Your task to perform on an android device: open wifi settings Image 0: 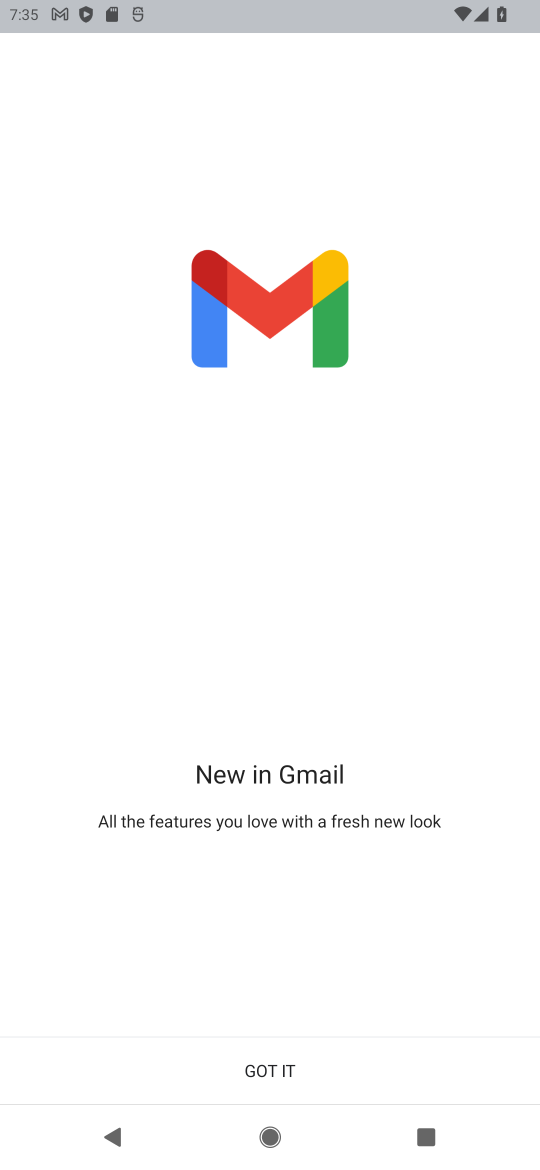
Step 0: press home button
Your task to perform on an android device: open wifi settings Image 1: 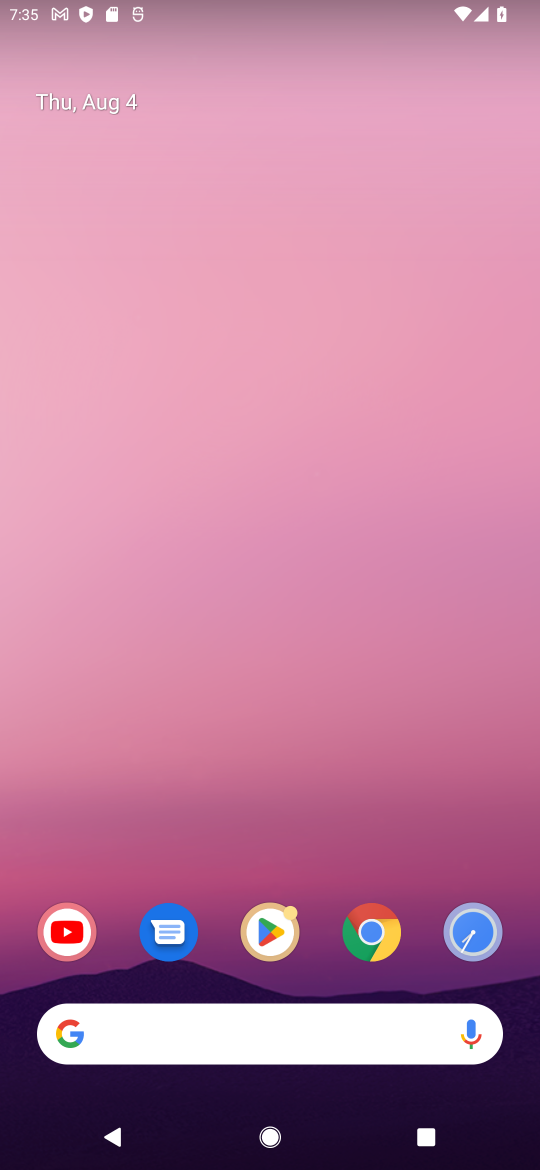
Step 1: drag from (319, 886) to (306, 150)
Your task to perform on an android device: open wifi settings Image 2: 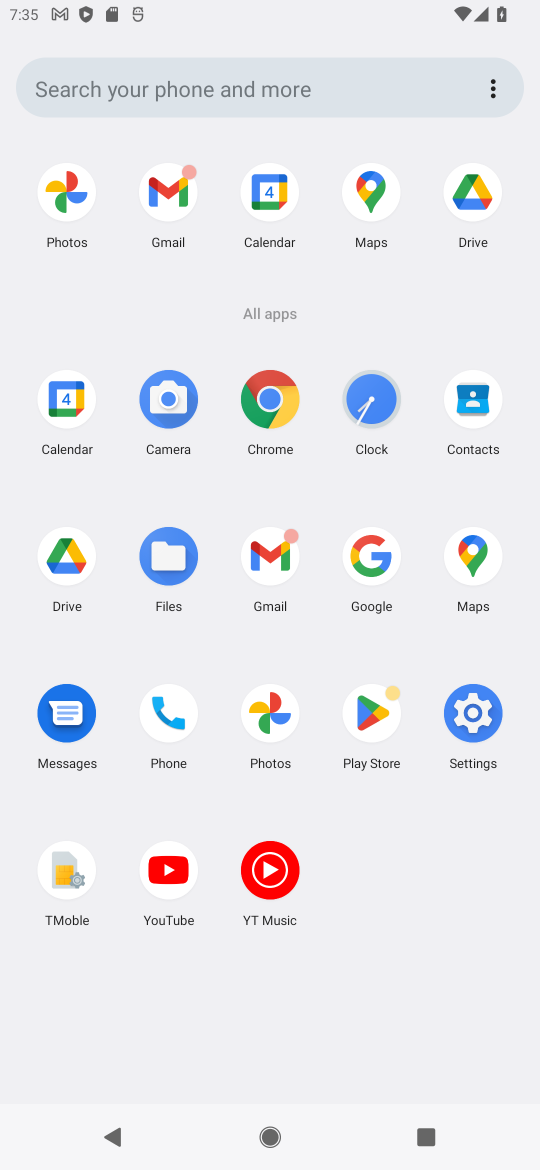
Step 2: click (479, 696)
Your task to perform on an android device: open wifi settings Image 3: 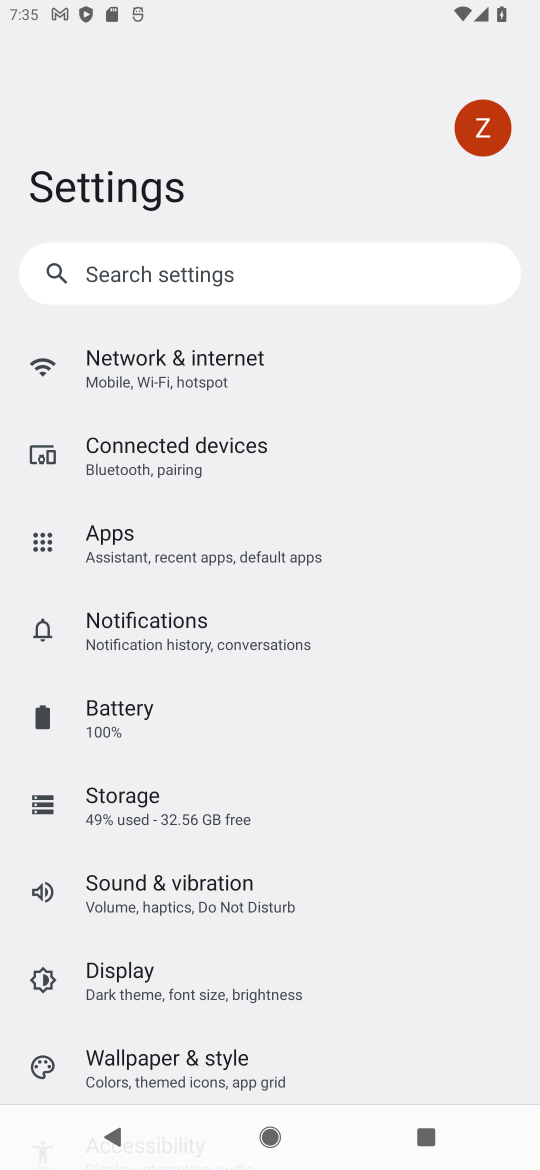
Step 3: click (195, 378)
Your task to perform on an android device: open wifi settings Image 4: 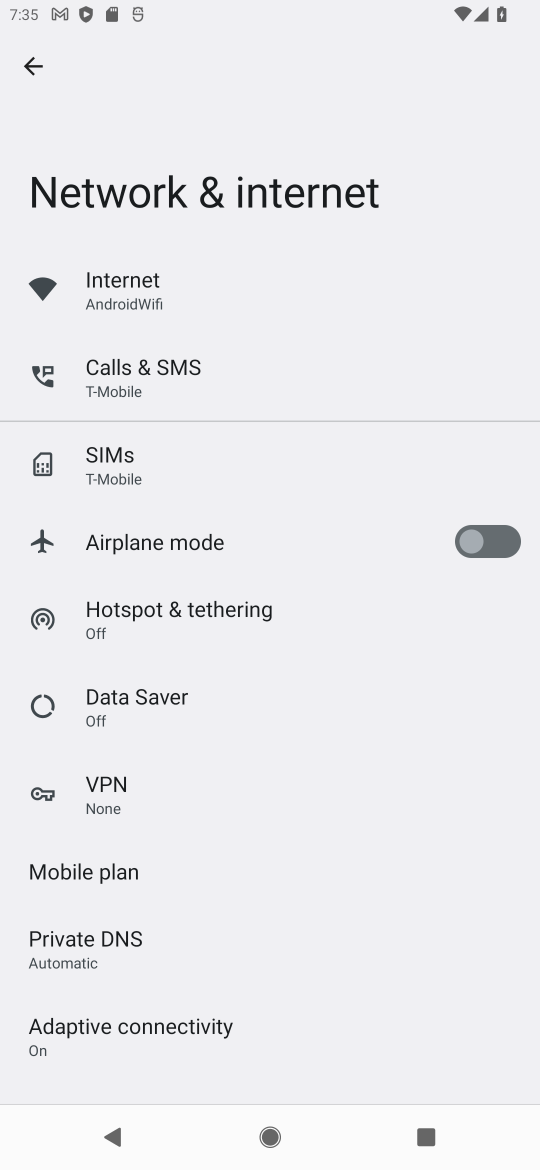
Step 4: click (184, 291)
Your task to perform on an android device: open wifi settings Image 5: 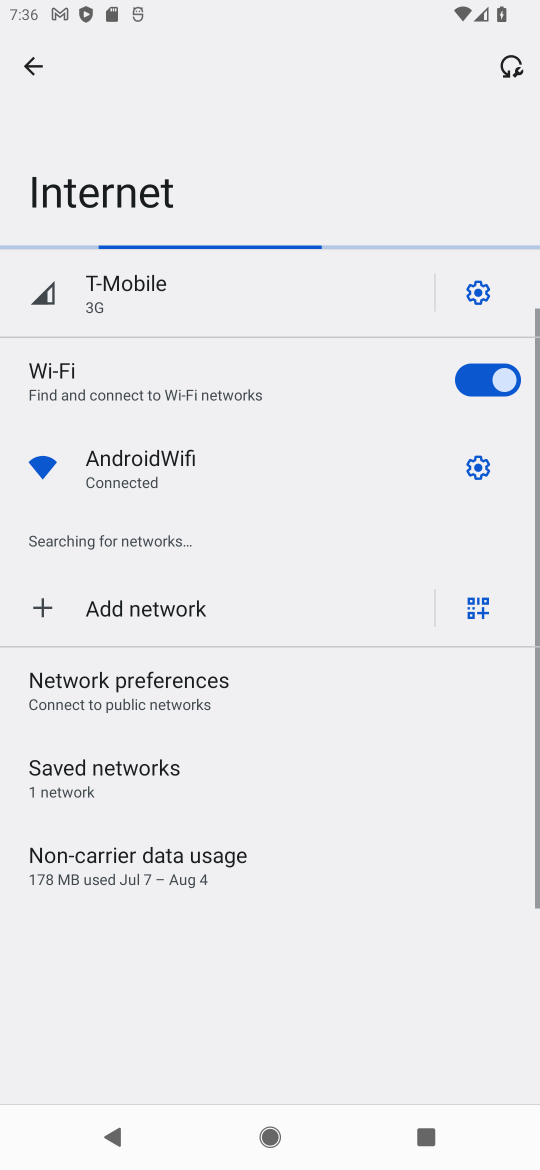
Step 5: click (485, 461)
Your task to perform on an android device: open wifi settings Image 6: 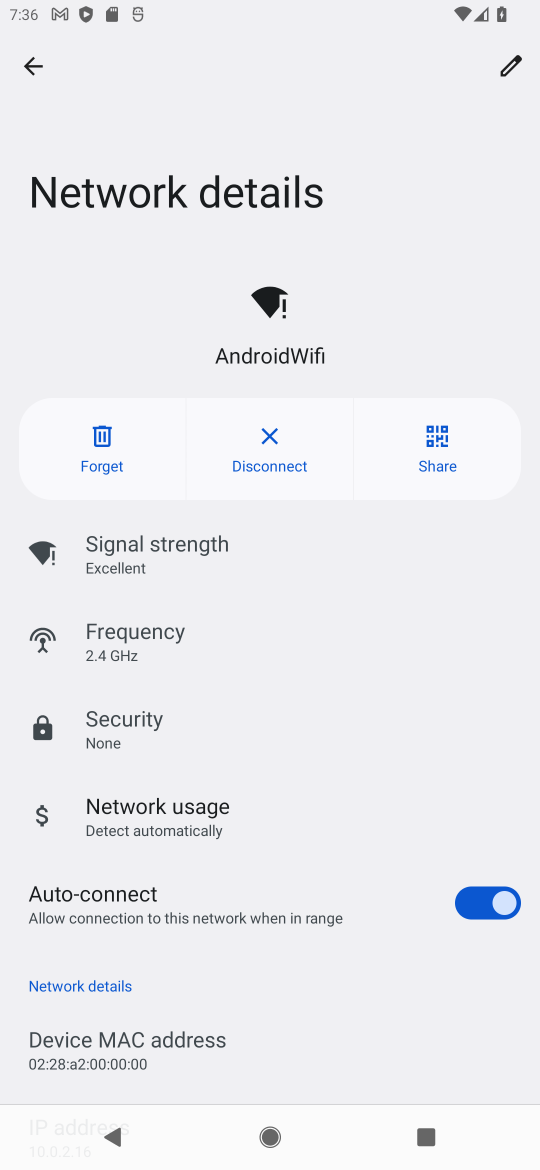
Step 6: task complete